Your task to perform on an android device: Go to internet settings Image 0: 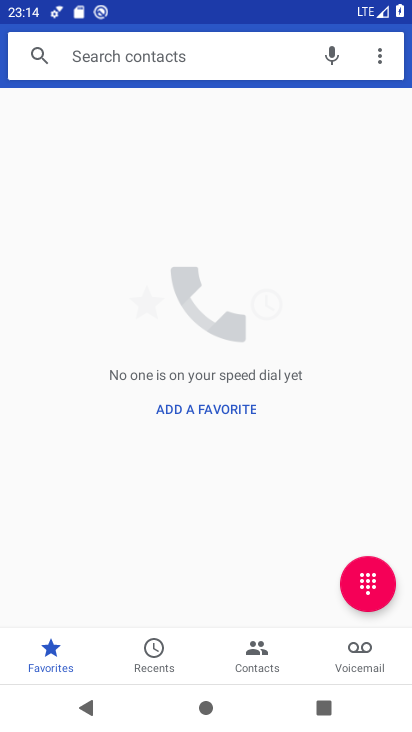
Step 0: press home button
Your task to perform on an android device: Go to internet settings Image 1: 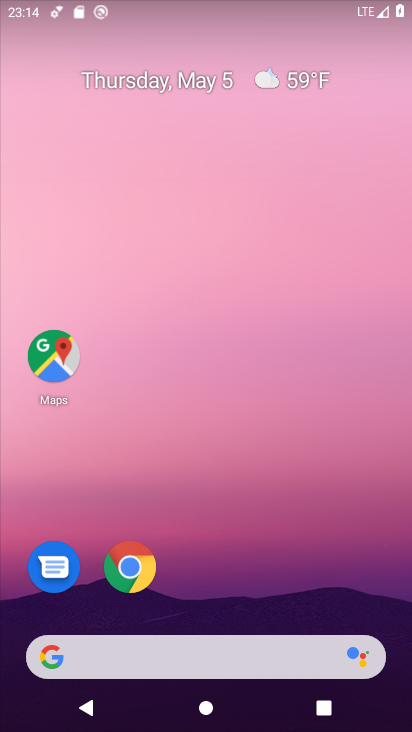
Step 1: drag from (330, 562) to (317, 8)
Your task to perform on an android device: Go to internet settings Image 2: 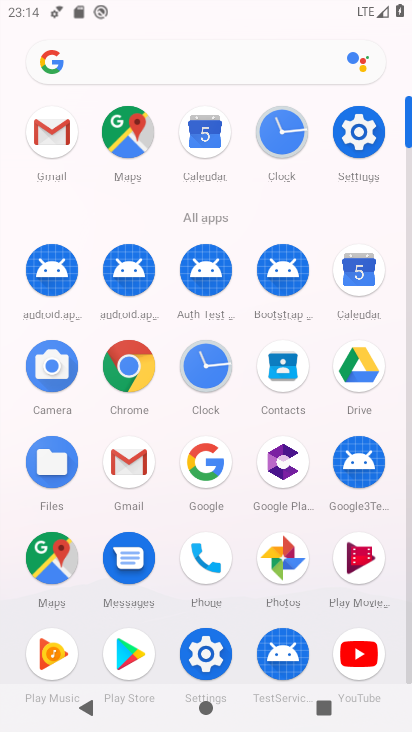
Step 2: click (357, 169)
Your task to perform on an android device: Go to internet settings Image 3: 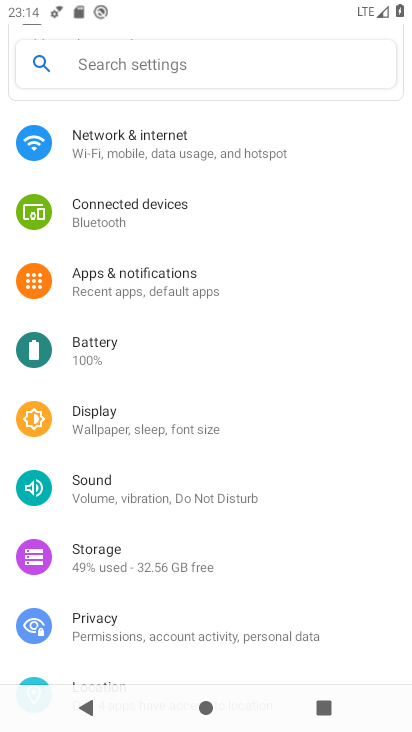
Step 3: click (120, 150)
Your task to perform on an android device: Go to internet settings Image 4: 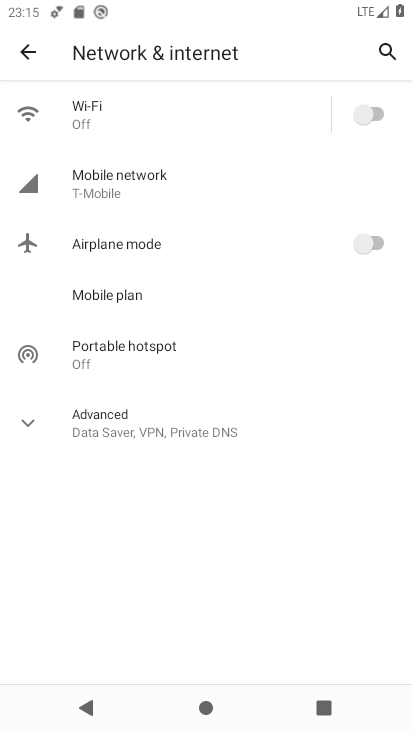
Step 4: task complete